Your task to perform on an android device: open a bookmark in the chrome app Image 0: 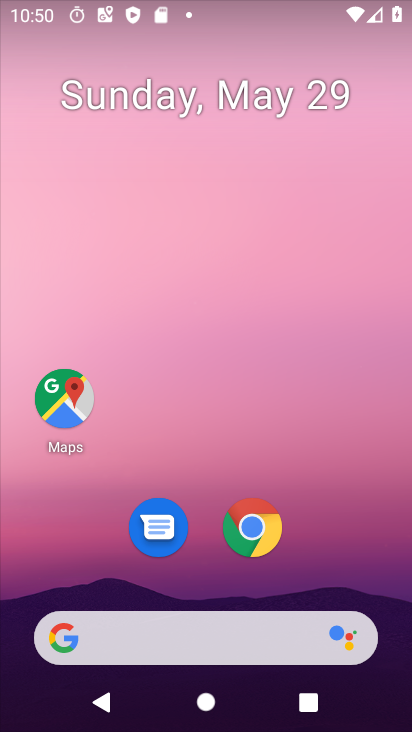
Step 0: click (251, 523)
Your task to perform on an android device: open a bookmark in the chrome app Image 1: 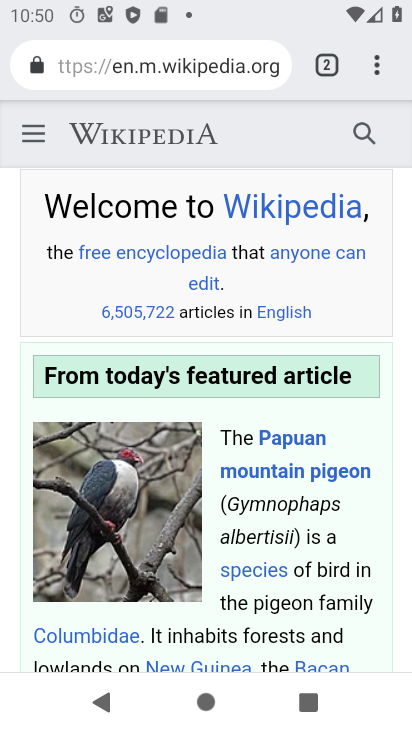
Step 1: drag from (390, 52) to (176, 235)
Your task to perform on an android device: open a bookmark in the chrome app Image 2: 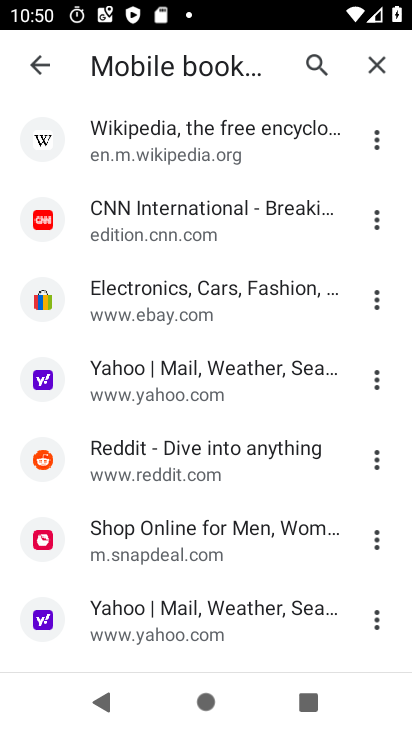
Step 2: click (147, 154)
Your task to perform on an android device: open a bookmark in the chrome app Image 3: 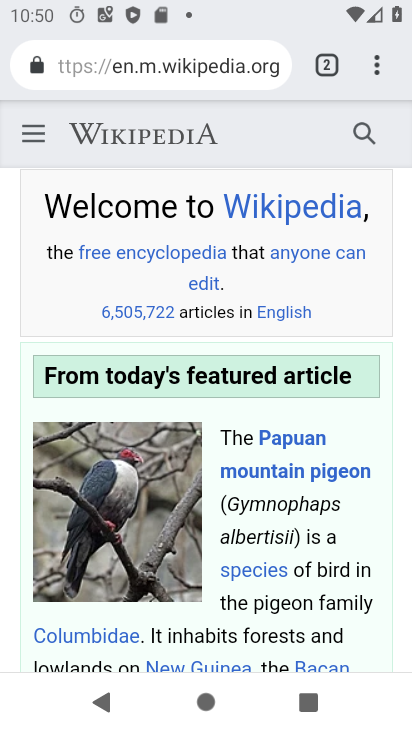
Step 3: task complete